Your task to perform on an android device: Is it going to rain tomorrow? Image 0: 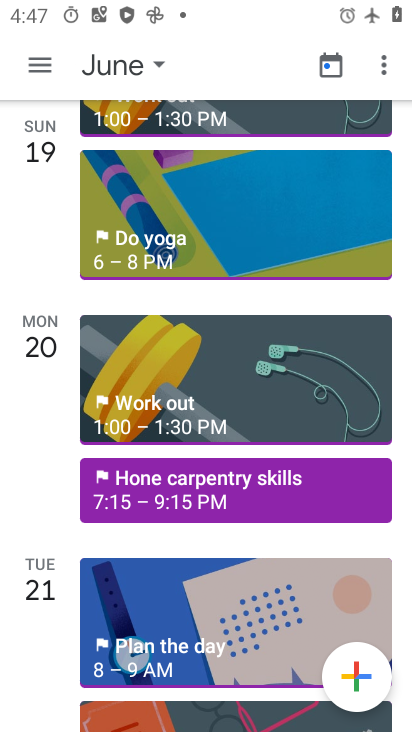
Step 0: press home button
Your task to perform on an android device: Is it going to rain tomorrow? Image 1: 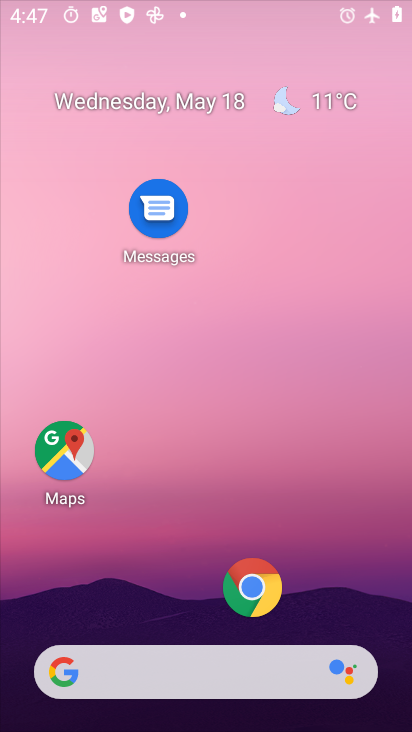
Step 1: drag from (205, 647) to (218, 18)
Your task to perform on an android device: Is it going to rain tomorrow? Image 2: 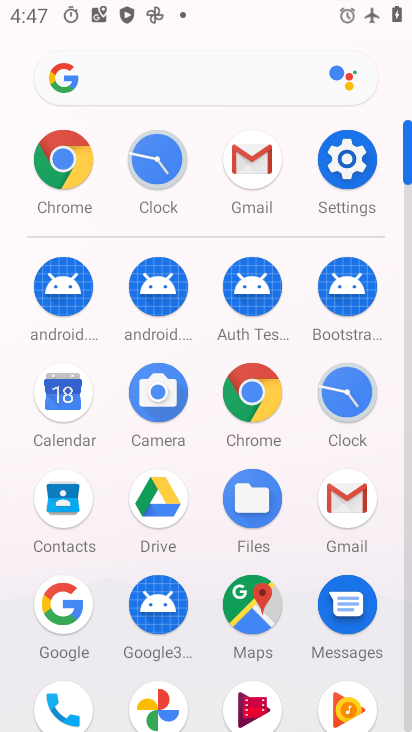
Step 2: click (72, 613)
Your task to perform on an android device: Is it going to rain tomorrow? Image 3: 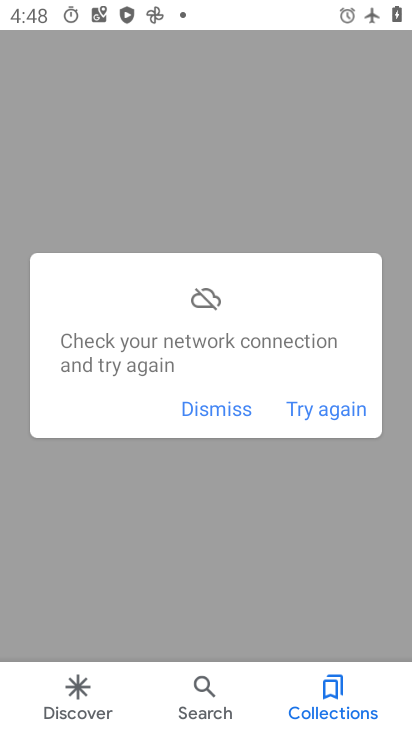
Step 3: task complete